Your task to perform on an android device: toggle sleep mode Image 0: 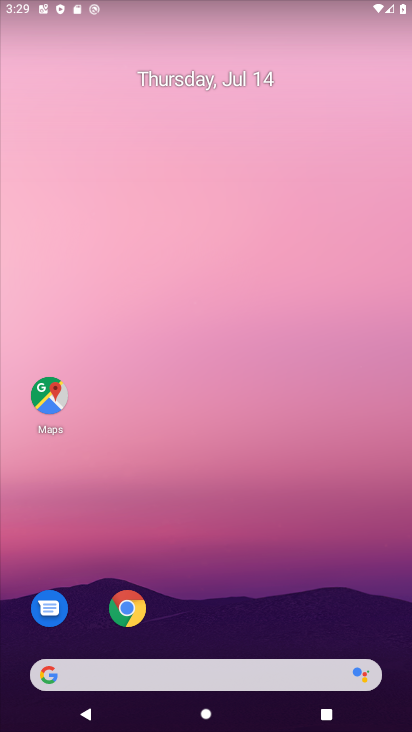
Step 0: drag from (1, 726) to (264, 60)
Your task to perform on an android device: toggle sleep mode Image 1: 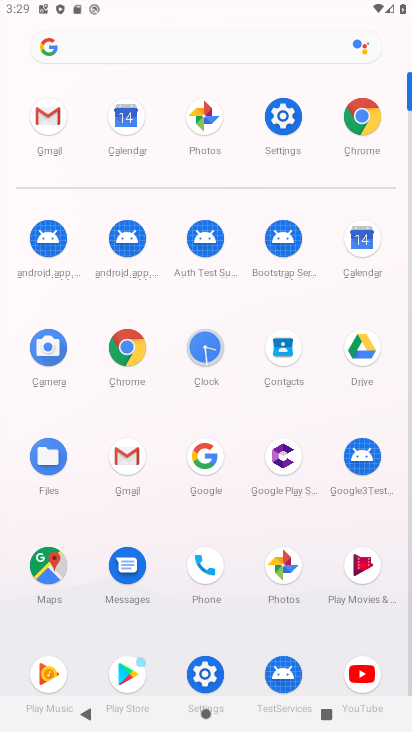
Step 1: click (273, 116)
Your task to perform on an android device: toggle sleep mode Image 2: 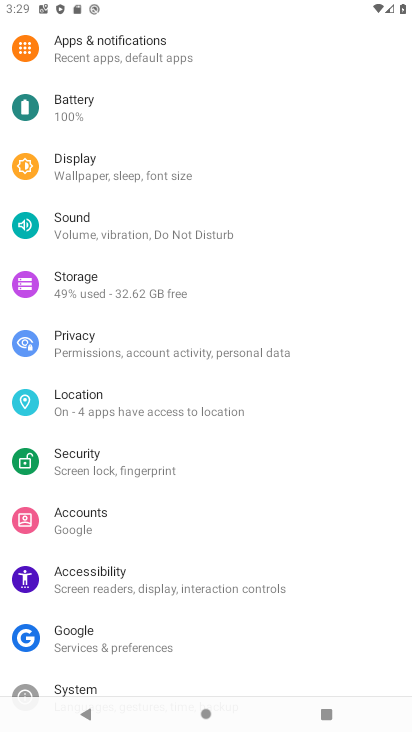
Step 2: task complete